Your task to perform on an android device: Go to Wikipedia Image 0: 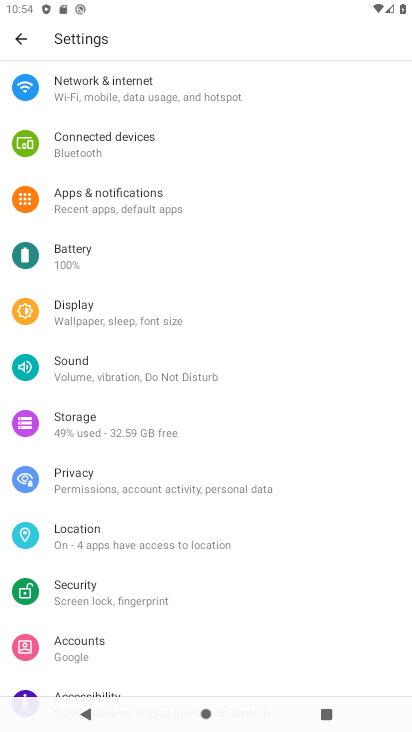
Step 0: press back button
Your task to perform on an android device: Go to Wikipedia Image 1: 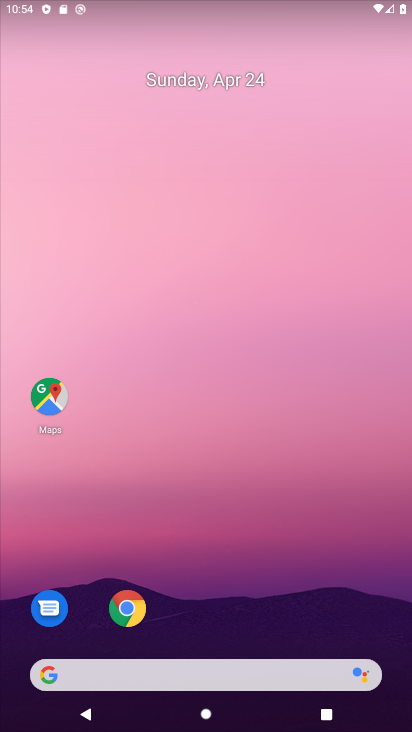
Step 1: drag from (251, 555) to (238, 16)
Your task to perform on an android device: Go to Wikipedia Image 2: 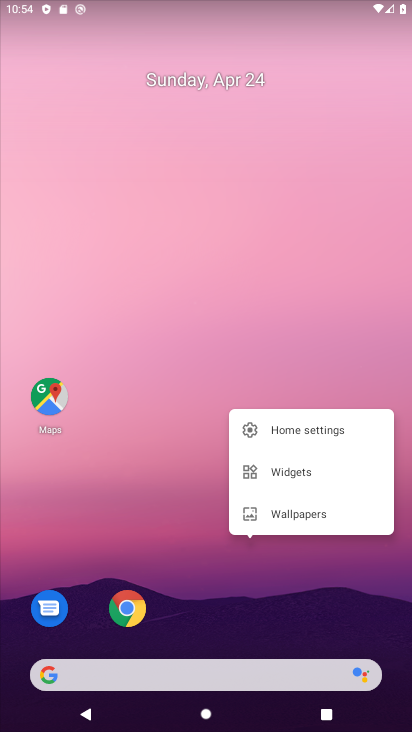
Step 2: click (177, 570)
Your task to perform on an android device: Go to Wikipedia Image 3: 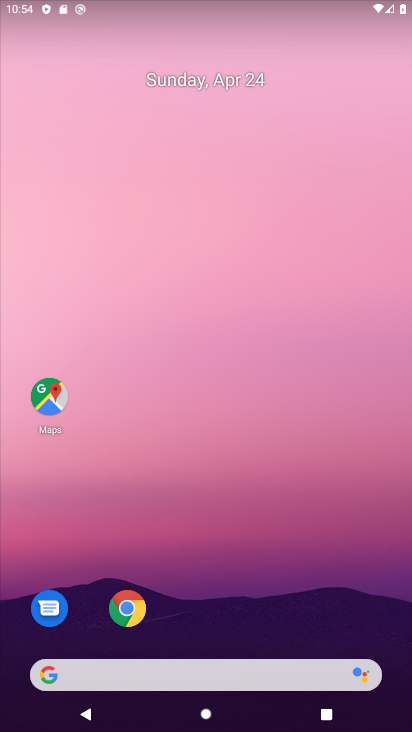
Step 3: drag from (177, 551) to (169, 26)
Your task to perform on an android device: Go to Wikipedia Image 4: 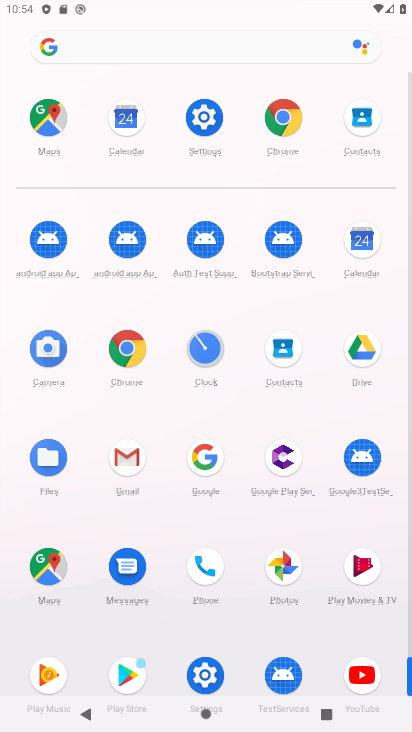
Step 4: click (128, 349)
Your task to perform on an android device: Go to Wikipedia Image 5: 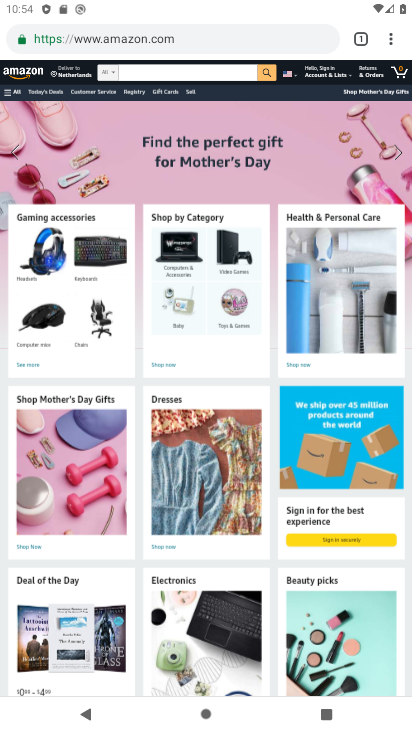
Step 5: click (196, 43)
Your task to perform on an android device: Go to Wikipedia Image 6: 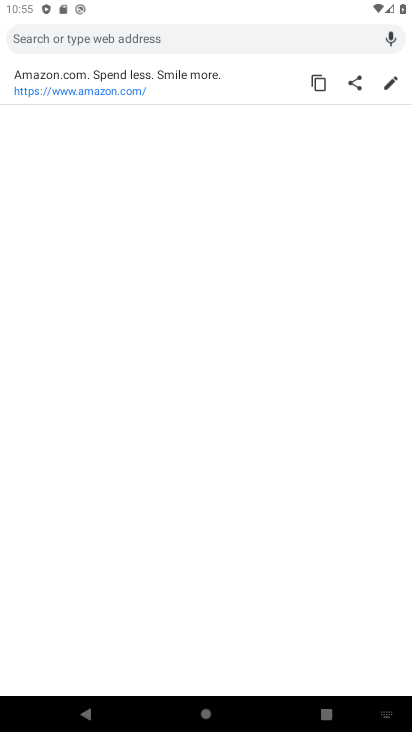
Step 6: type "Wikipedia"
Your task to perform on an android device: Go to Wikipedia Image 7: 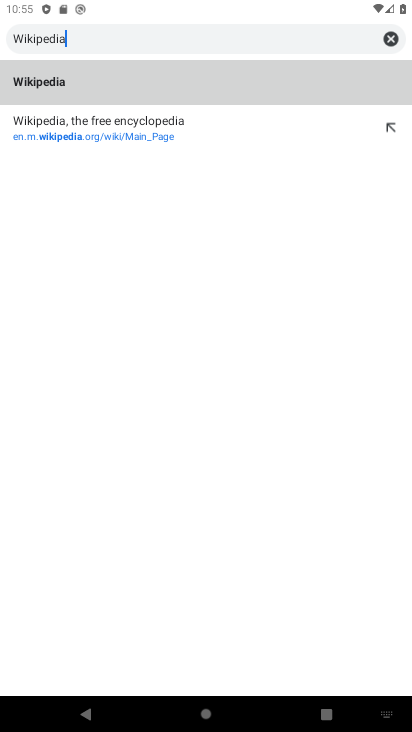
Step 7: type ""
Your task to perform on an android device: Go to Wikipedia Image 8: 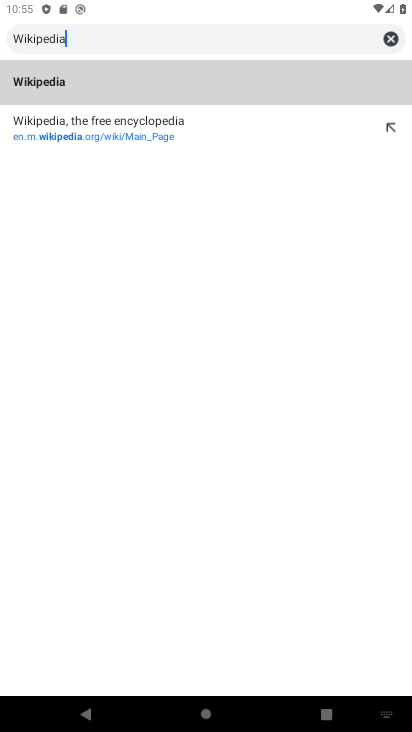
Step 8: click (222, 78)
Your task to perform on an android device: Go to Wikipedia Image 9: 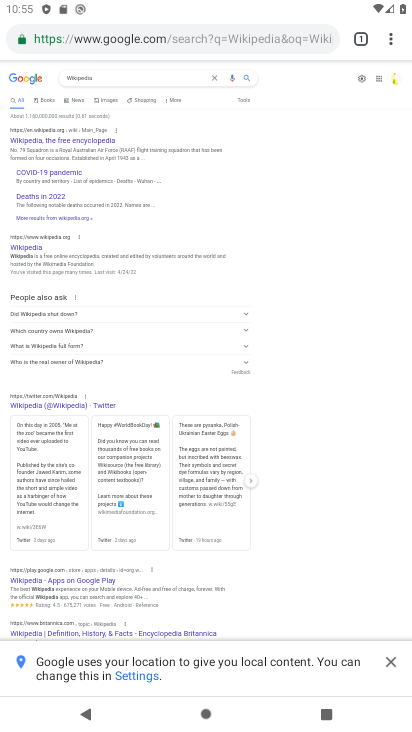
Step 9: click (26, 136)
Your task to perform on an android device: Go to Wikipedia Image 10: 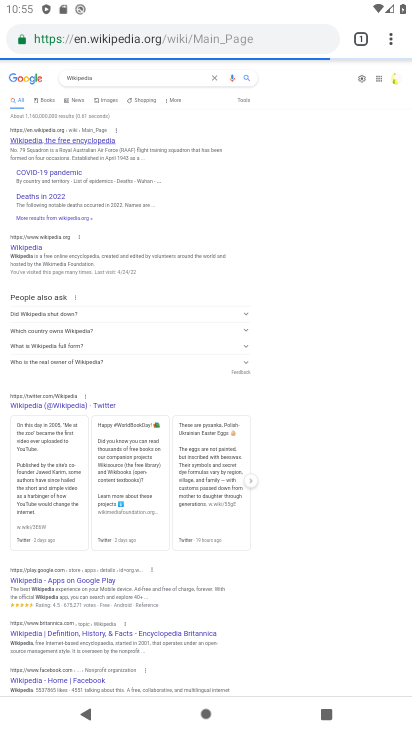
Step 10: click (36, 144)
Your task to perform on an android device: Go to Wikipedia Image 11: 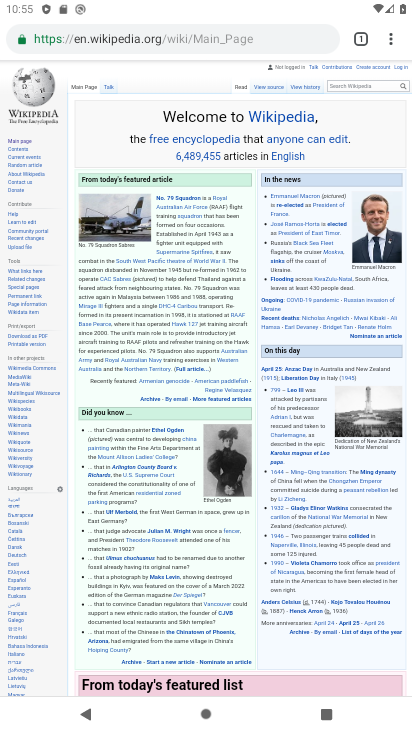
Step 11: task complete